Your task to perform on an android device: Go to Maps Image 0: 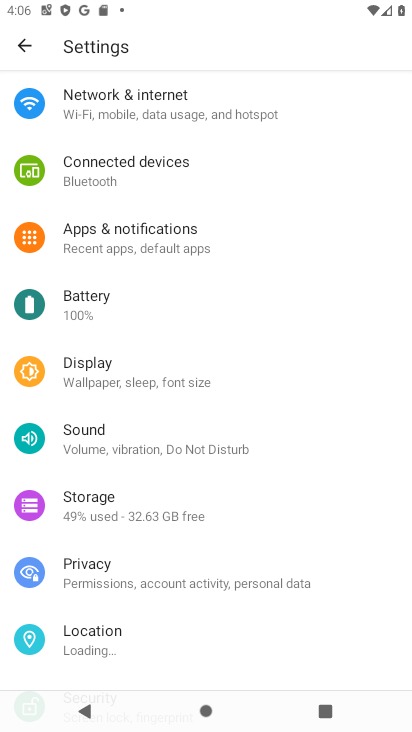
Step 0: press home button
Your task to perform on an android device: Go to Maps Image 1: 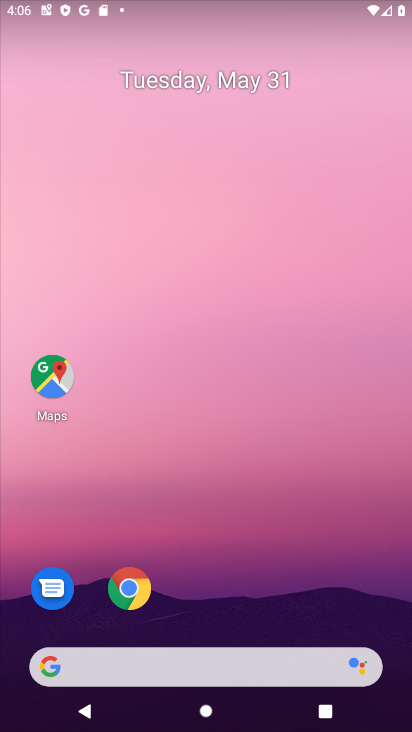
Step 1: click (71, 377)
Your task to perform on an android device: Go to Maps Image 2: 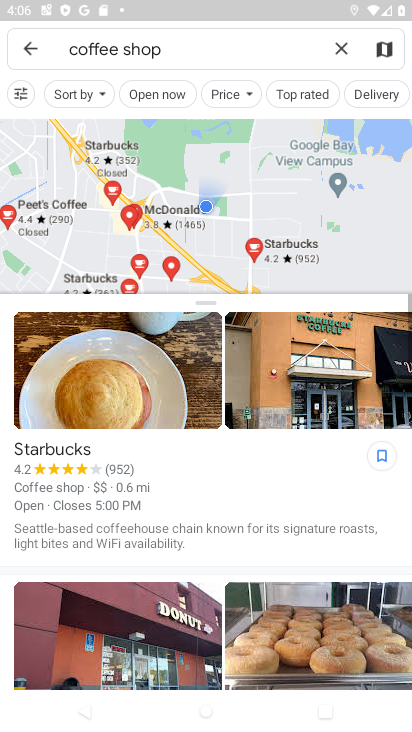
Step 2: task complete